Your task to perform on an android device: toggle sleep mode Image 0: 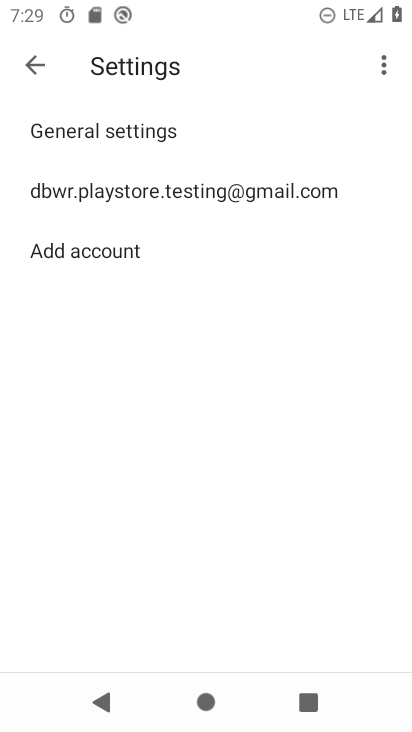
Step 0: press home button
Your task to perform on an android device: toggle sleep mode Image 1: 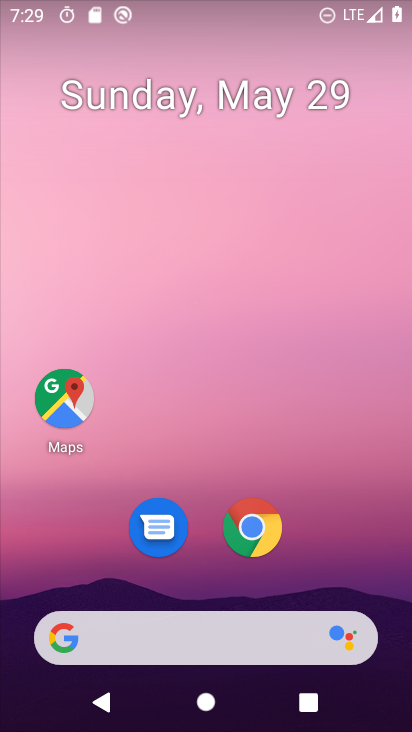
Step 1: drag from (378, 609) to (265, 66)
Your task to perform on an android device: toggle sleep mode Image 2: 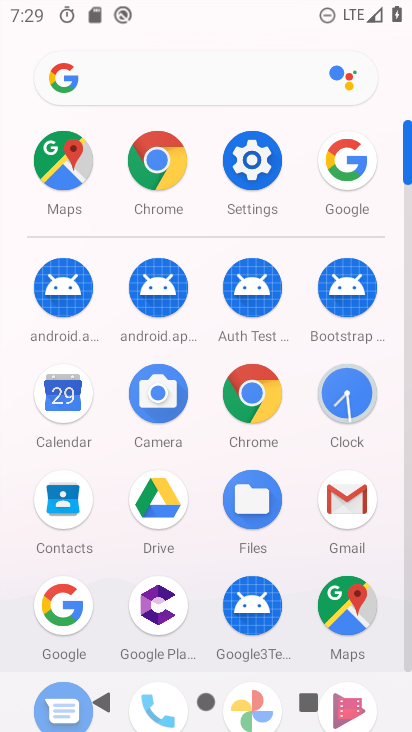
Step 2: click (242, 185)
Your task to perform on an android device: toggle sleep mode Image 3: 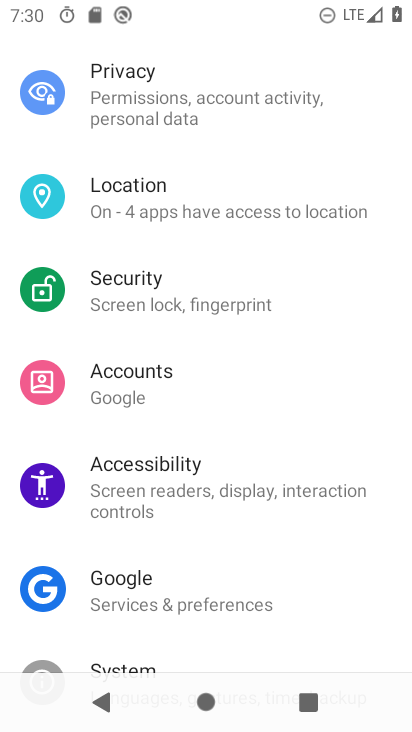
Step 3: task complete